Your task to perform on an android device: Open the calendar app, open the side menu, and click the "Day" option Image 0: 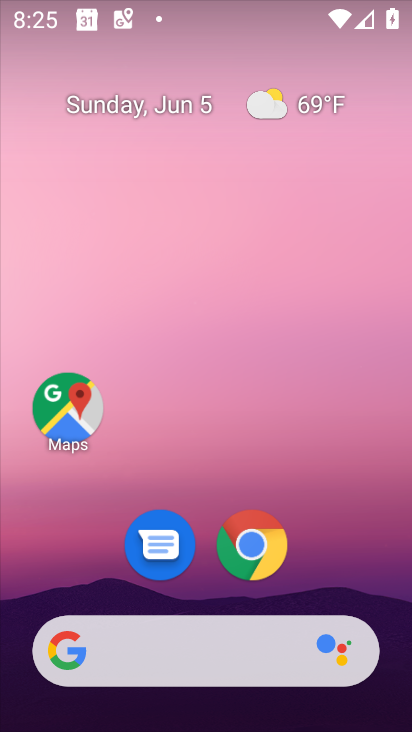
Step 0: drag from (359, 588) to (361, 179)
Your task to perform on an android device: Open the calendar app, open the side menu, and click the "Day" option Image 1: 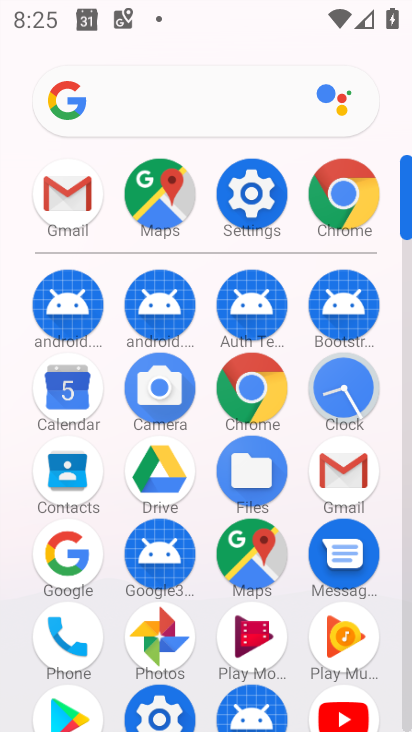
Step 1: click (70, 396)
Your task to perform on an android device: Open the calendar app, open the side menu, and click the "Day" option Image 2: 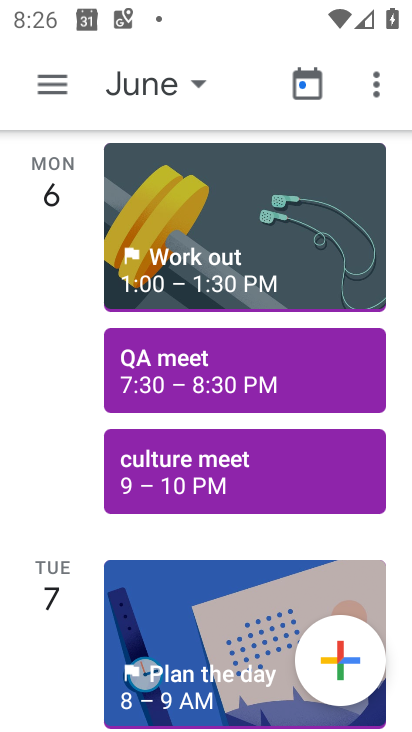
Step 2: click (58, 87)
Your task to perform on an android device: Open the calendar app, open the side menu, and click the "Day" option Image 3: 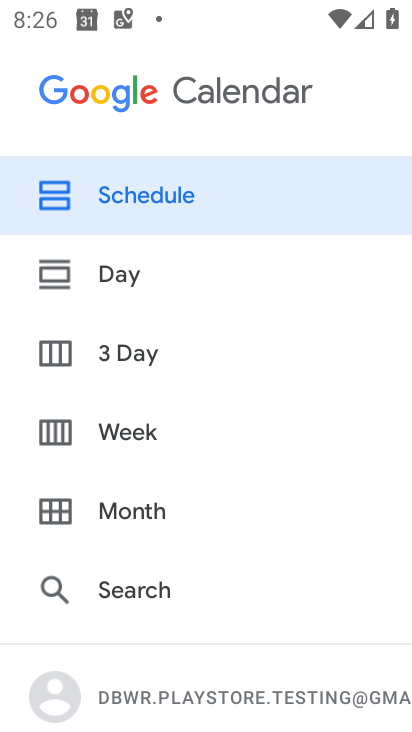
Step 3: click (108, 284)
Your task to perform on an android device: Open the calendar app, open the side menu, and click the "Day" option Image 4: 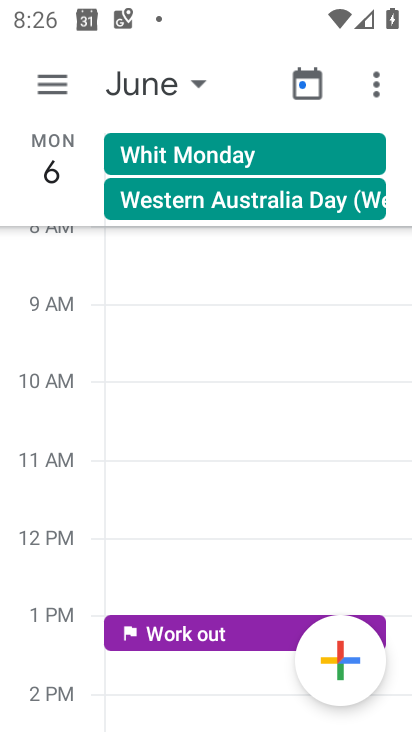
Step 4: task complete